Your task to perform on an android device: Open settings Image 0: 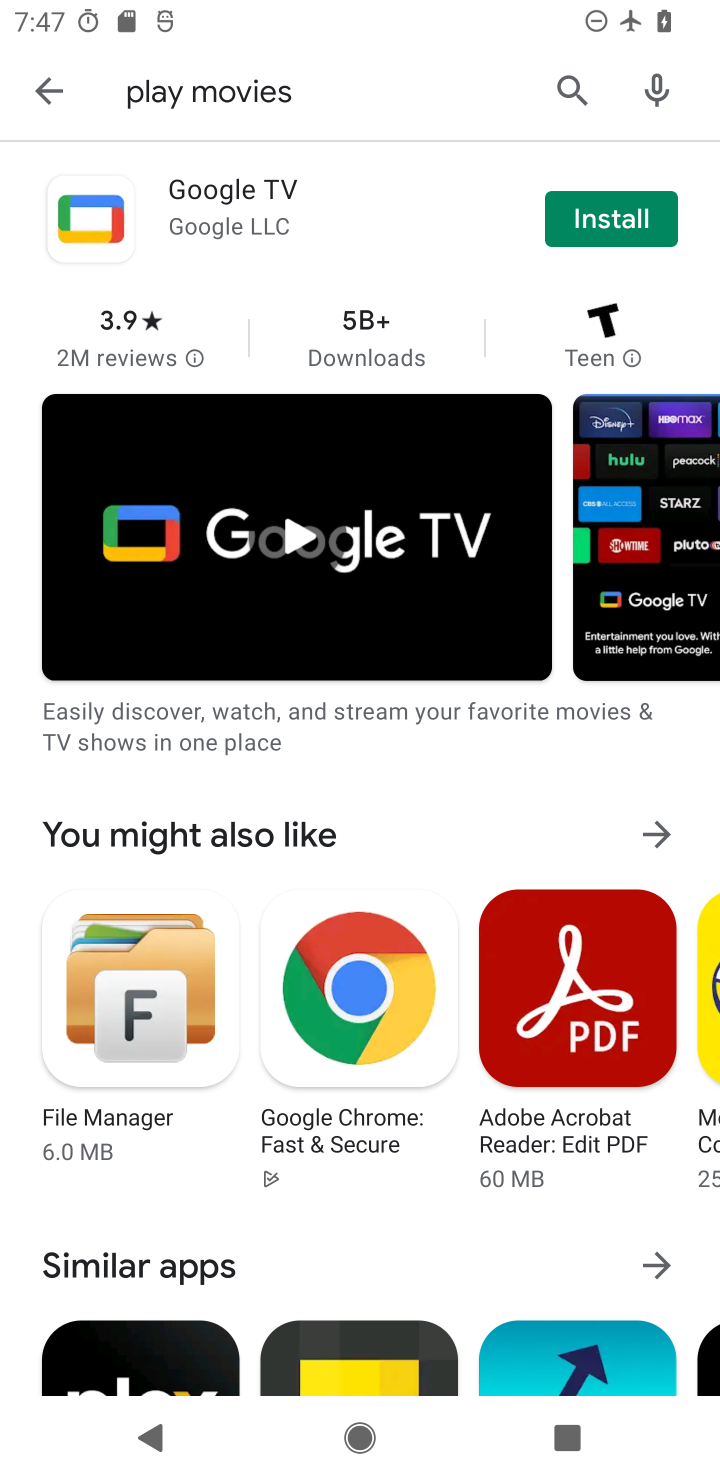
Step 0: press home button
Your task to perform on an android device: Open settings Image 1: 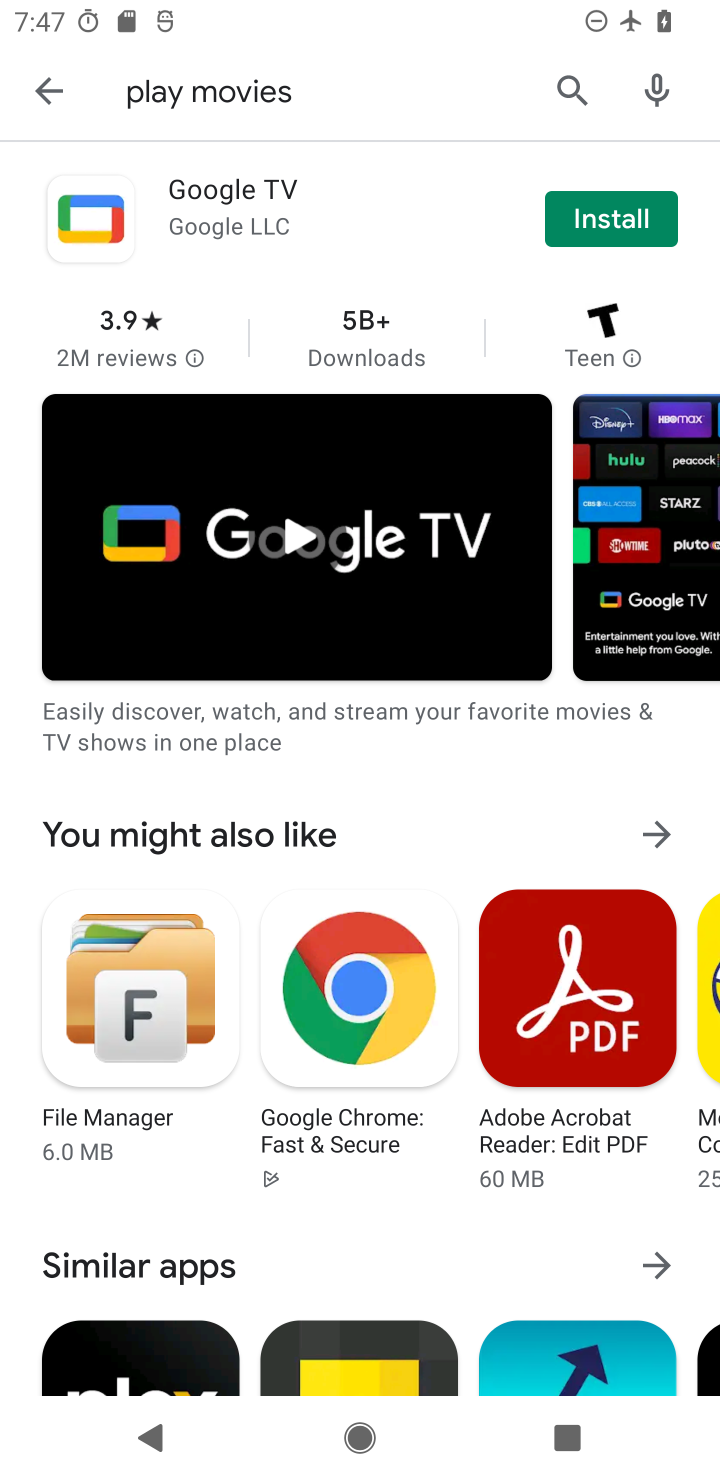
Step 1: press home button
Your task to perform on an android device: Open settings Image 2: 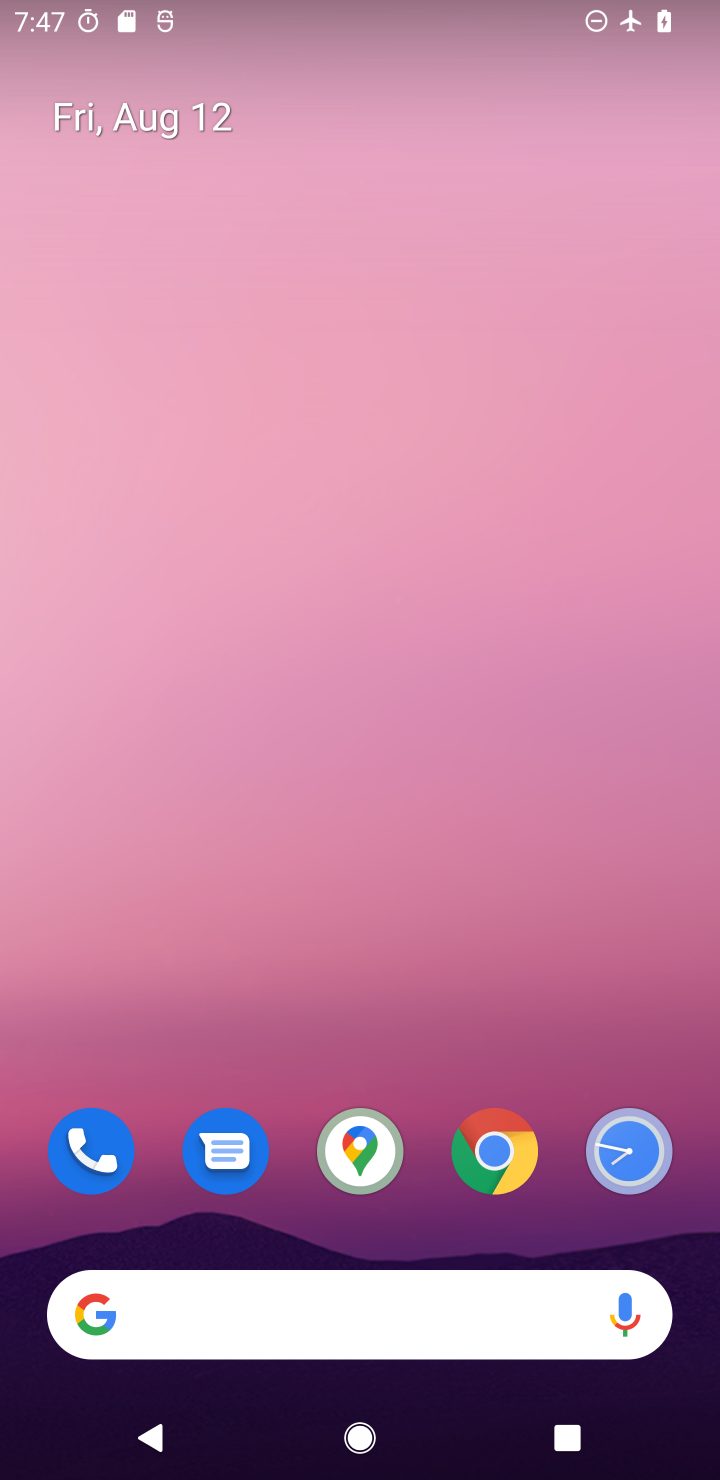
Step 2: drag from (423, 610) to (440, 18)
Your task to perform on an android device: Open settings Image 3: 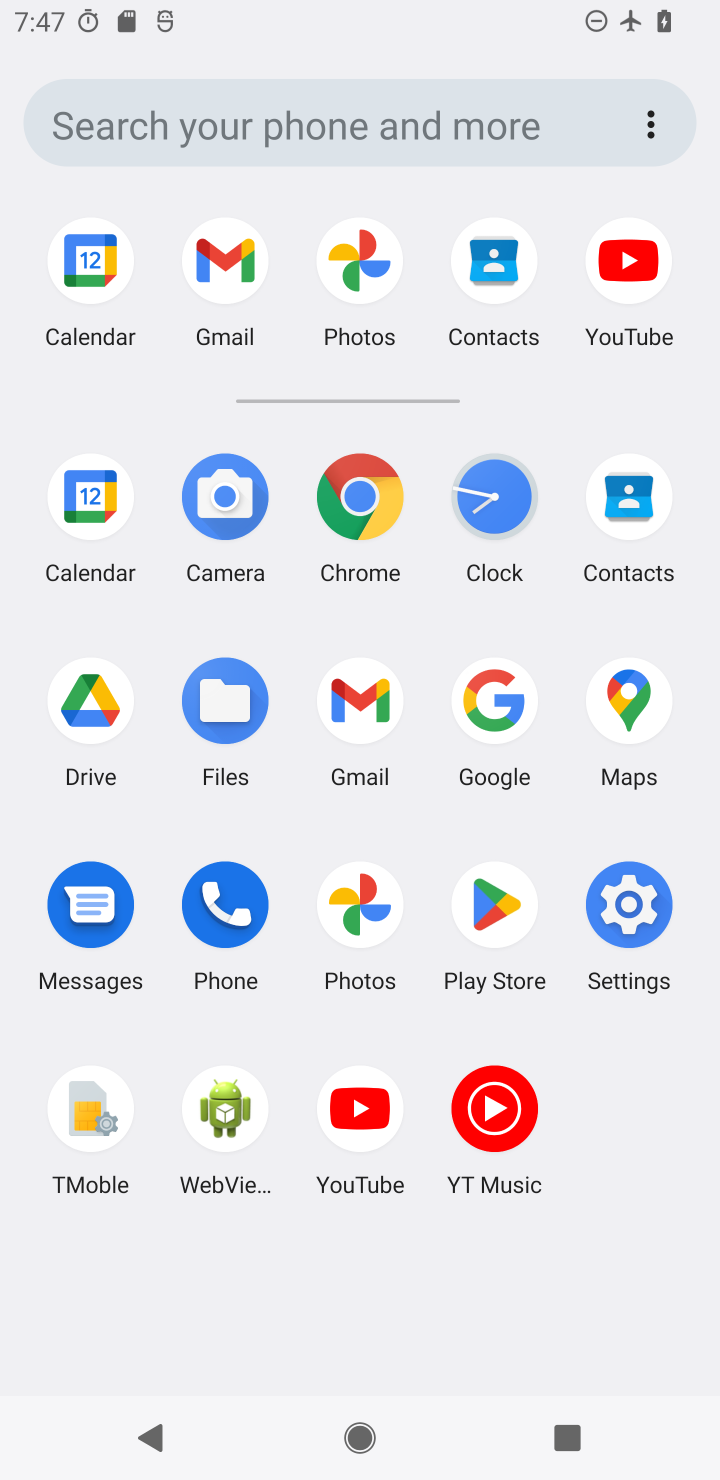
Step 3: click (637, 902)
Your task to perform on an android device: Open settings Image 4: 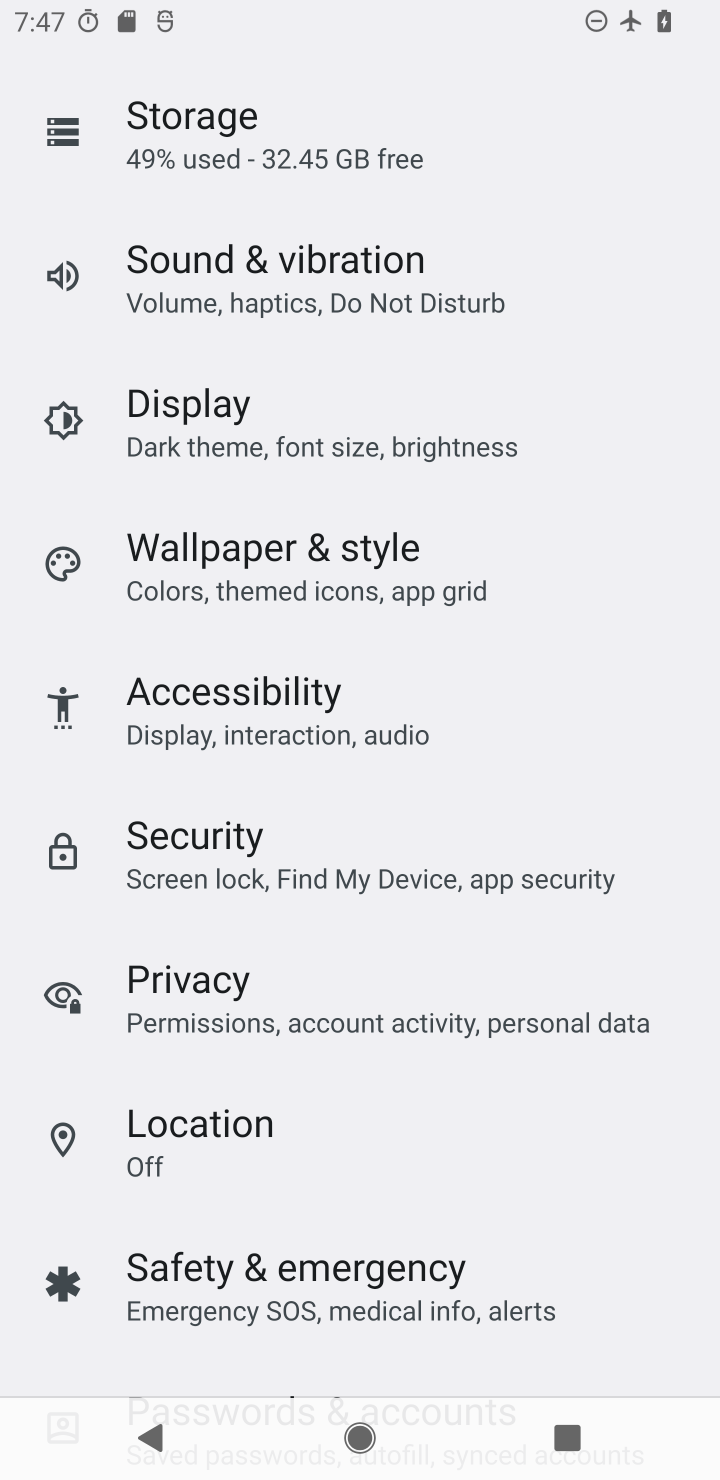
Step 4: task complete